Your task to perform on an android device: Open the calendar app, open the side menu, and click the "Day" option Image 0: 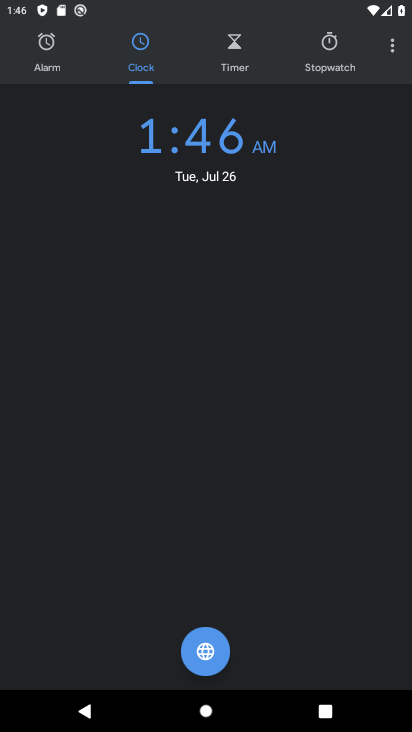
Step 0: press home button
Your task to perform on an android device: Open the calendar app, open the side menu, and click the "Day" option Image 1: 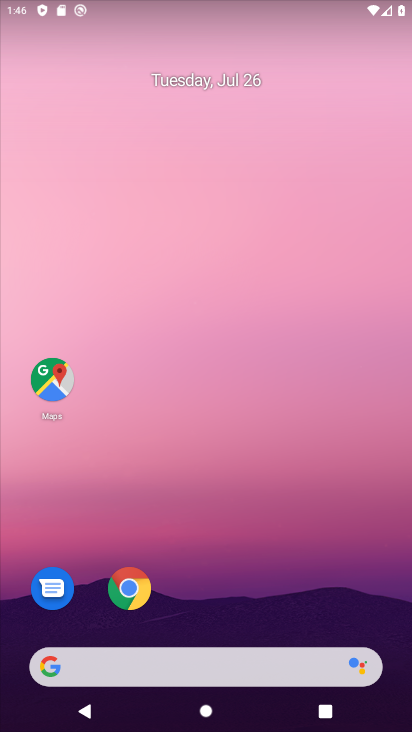
Step 1: drag from (259, 607) to (178, 145)
Your task to perform on an android device: Open the calendar app, open the side menu, and click the "Day" option Image 2: 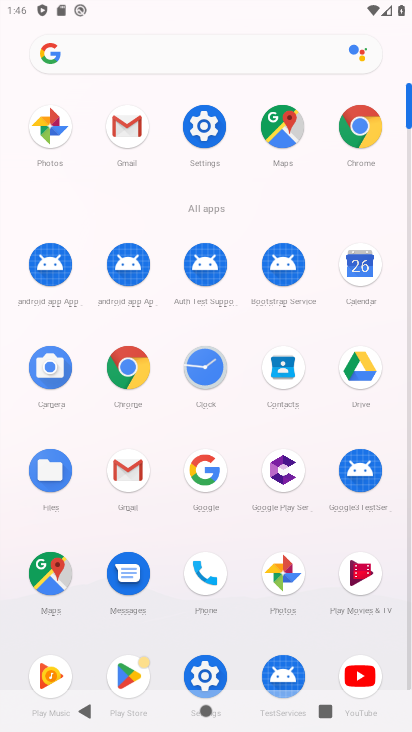
Step 2: click (363, 271)
Your task to perform on an android device: Open the calendar app, open the side menu, and click the "Day" option Image 3: 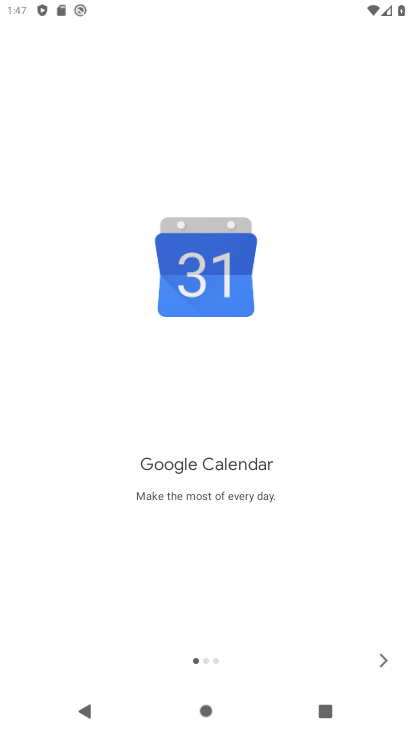
Step 3: click (389, 659)
Your task to perform on an android device: Open the calendar app, open the side menu, and click the "Day" option Image 4: 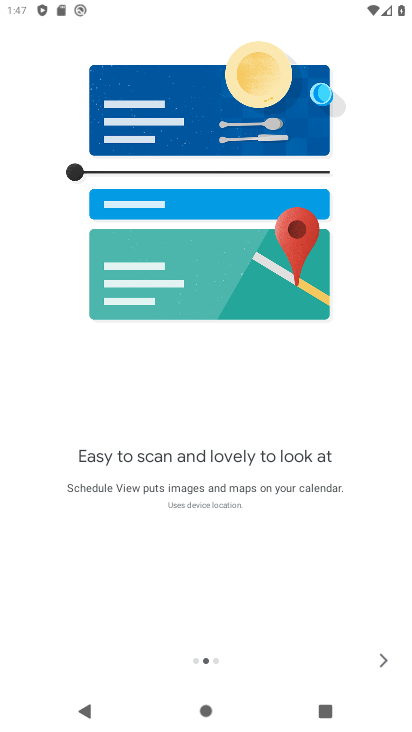
Step 4: click (380, 661)
Your task to perform on an android device: Open the calendar app, open the side menu, and click the "Day" option Image 5: 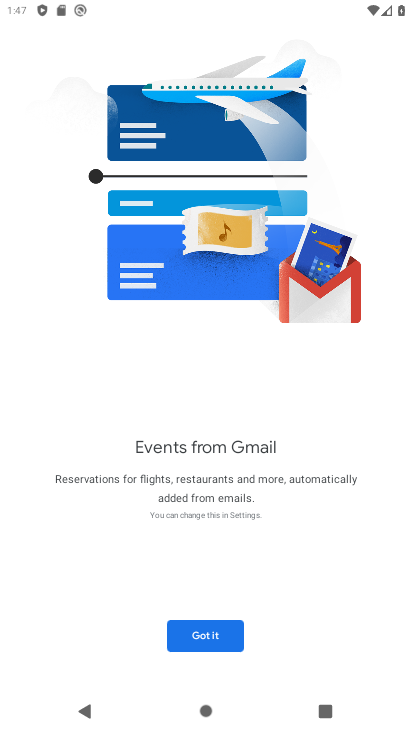
Step 5: click (224, 636)
Your task to perform on an android device: Open the calendar app, open the side menu, and click the "Day" option Image 6: 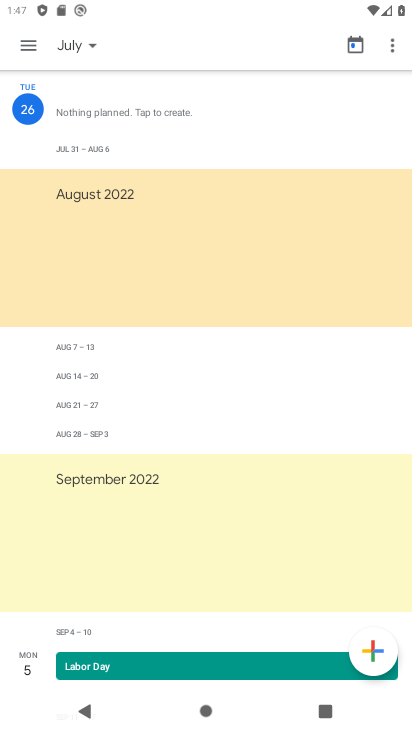
Step 6: click (32, 42)
Your task to perform on an android device: Open the calendar app, open the side menu, and click the "Day" option Image 7: 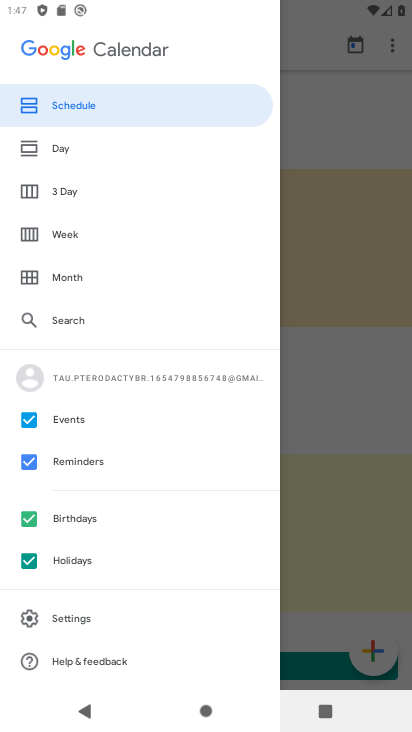
Step 7: click (73, 151)
Your task to perform on an android device: Open the calendar app, open the side menu, and click the "Day" option Image 8: 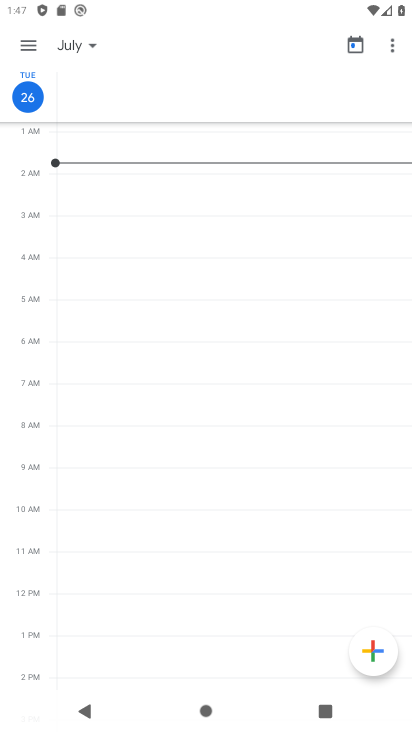
Step 8: task complete